Your task to perform on an android device: turn notification dots off Image 0: 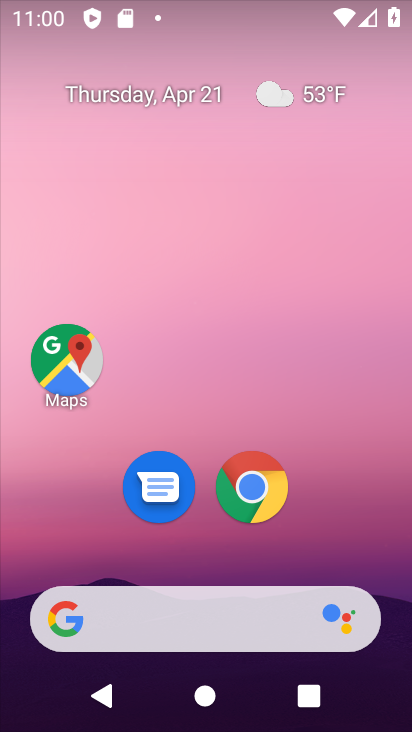
Step 0: drag from (336, 454) to (284, 107)
Your task to perform on an android device: turn notification dots off Image 1: 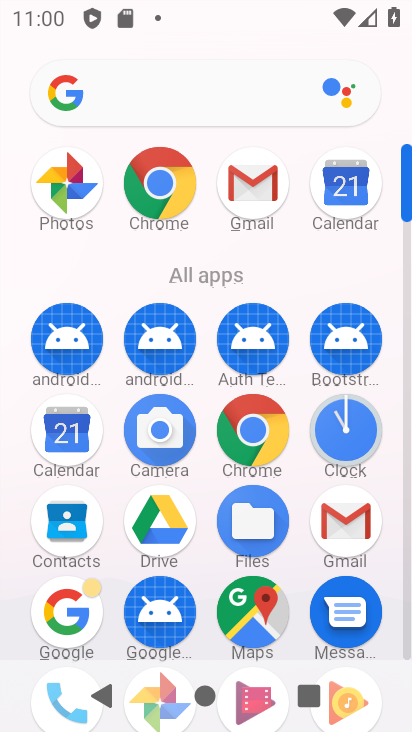
Step 1: drag from (384, 515) to (410, 225)
Your task to perform on an android device: turn notification dots off Image 2: 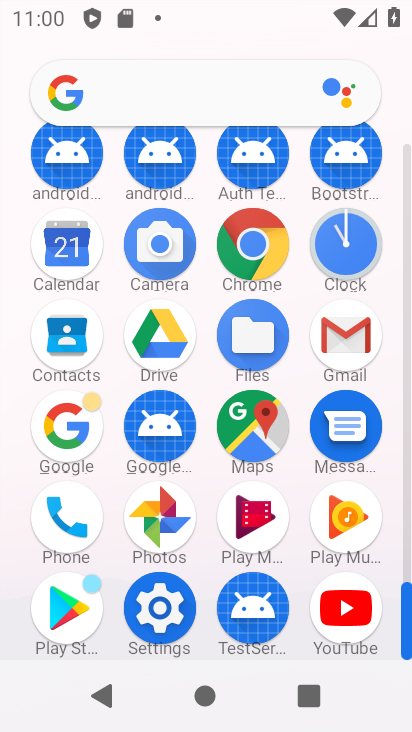
Step 2: click (150, 607)
Your task to perform on an android device: turn notification dots off Image 3: 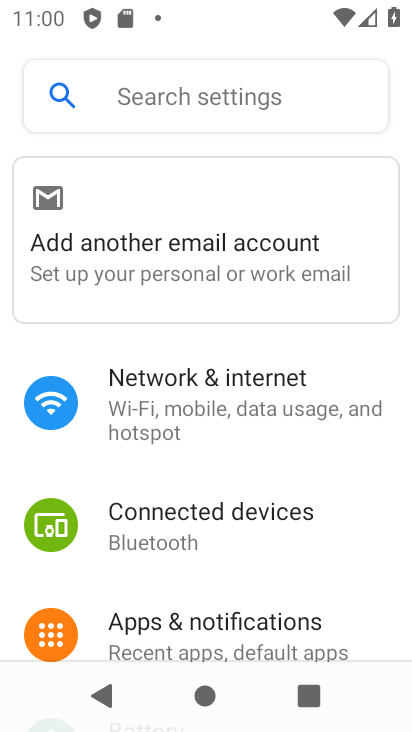
Step 3: drag from (223, 606) to (274, 225)
Your task to perform on an android device: turn notification dots off Image 4: 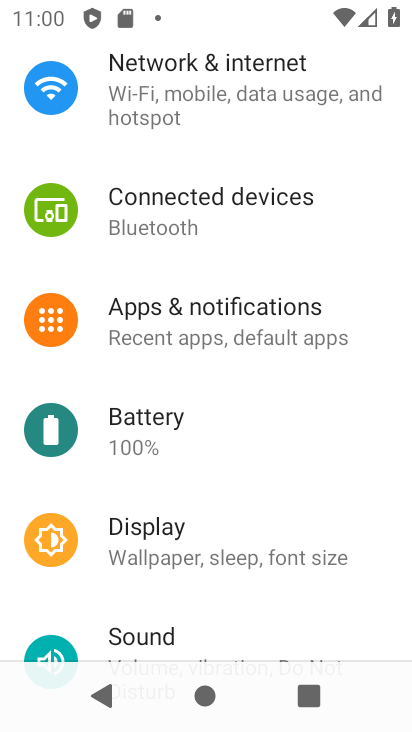
Step 4: click (288, 326)
Your task to perform on an android device: turn notification dots off Image 5: 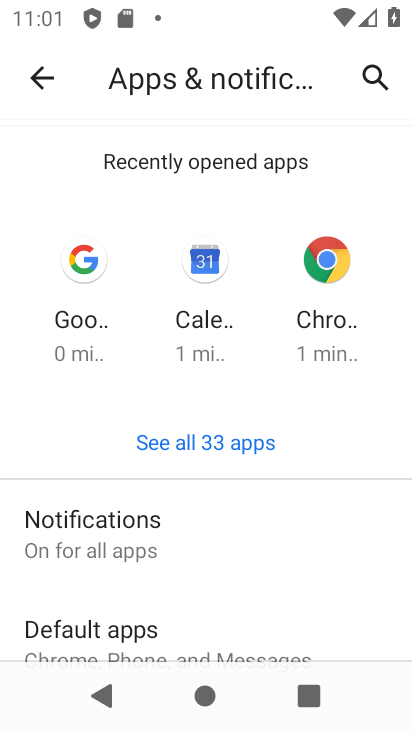
Step 5: drag from (235, 491) to (233, 214)
Your task to perform on an android device: turn notification dots off Image 6: 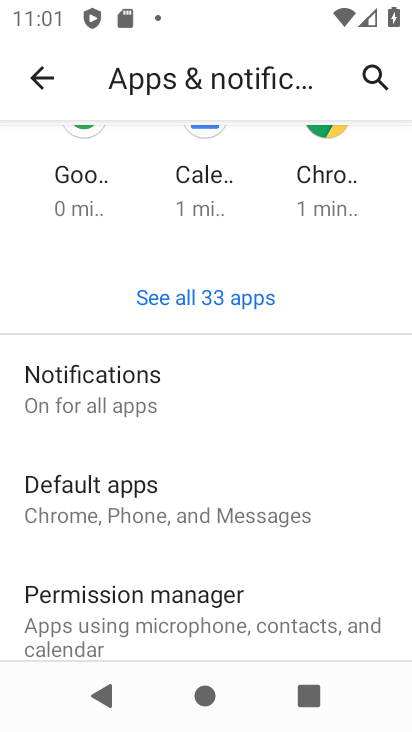
Step 6: click (96, 398)
Your task to perform on an android device: turn notification dots off Image 7: 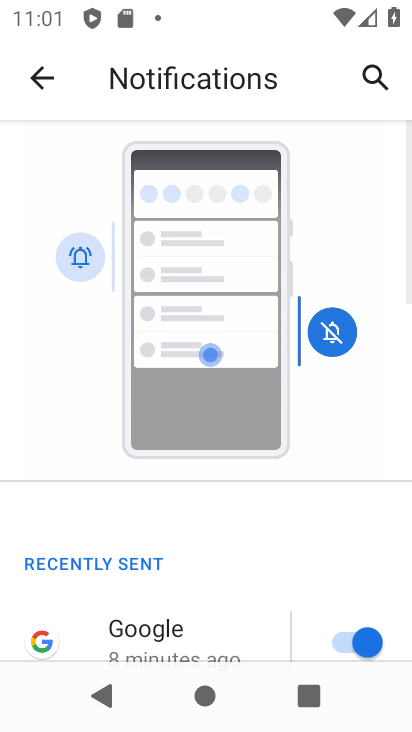
Step 7: drag from (247, 450) to (202, 137)
Your task to perform on an android device: turn notification dots off Image 8: 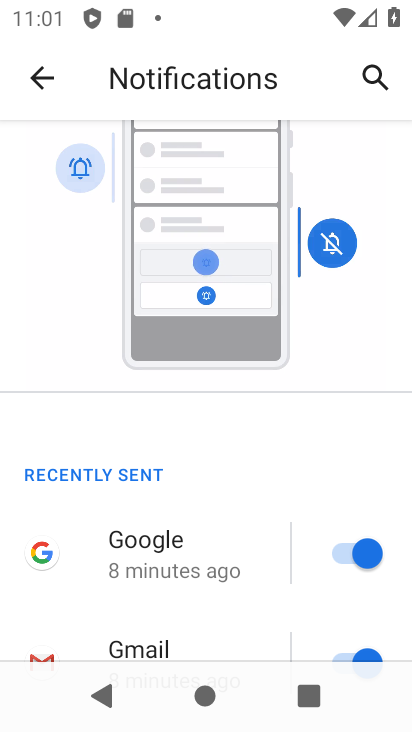
Step 8: drag from (202, 517) to (271, 110)
Your task to perform on an android device: turn notification dots off Image 9: 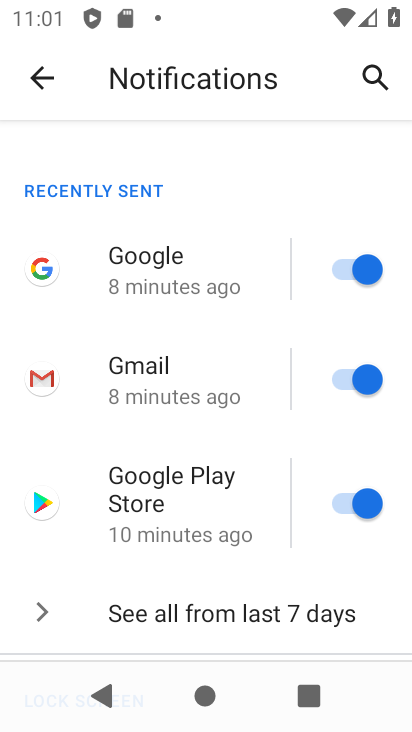
Step 9: drag from (264, 389) to (277, 86)
Your task to perform on an android device: turn notification dots off Image 10: 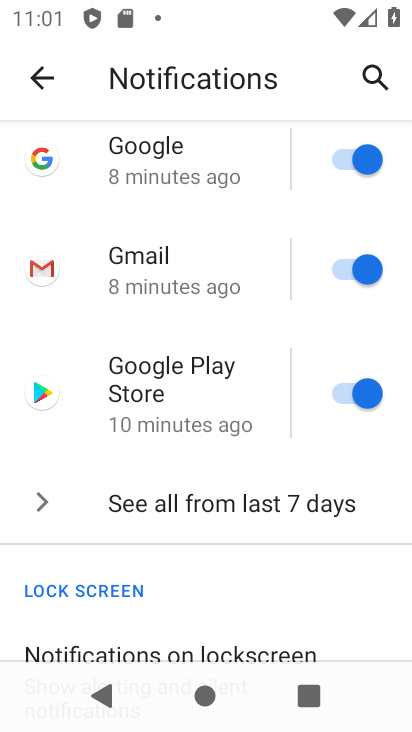
Step 10: drag from (254, 611) to (195, 246)
Your task to perform on an android device: turn notification dots off Image 11: 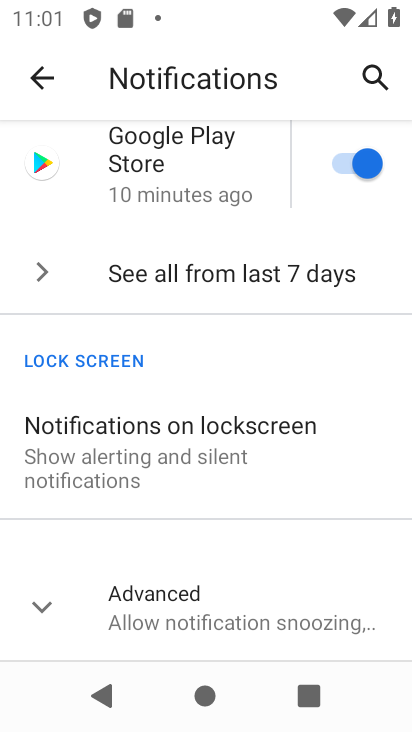
Step 11: click (195, 627)
Your task to perform on an android device: turn notification dots off Image 12: 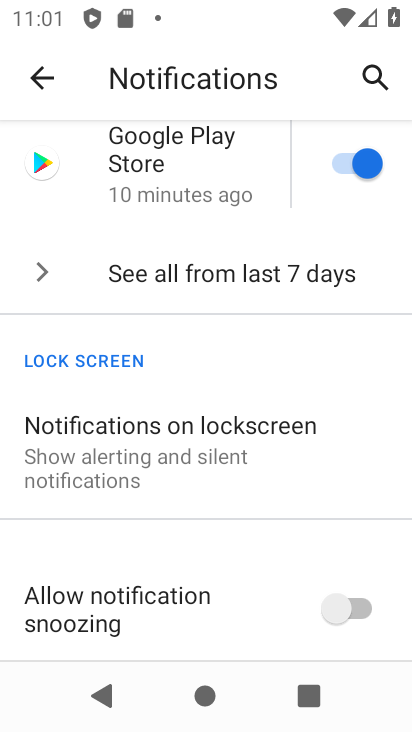
Step 12: drag from (209, 562) to (308, 286)
Your task to perform on an android device: turn notification dots off Image 13: 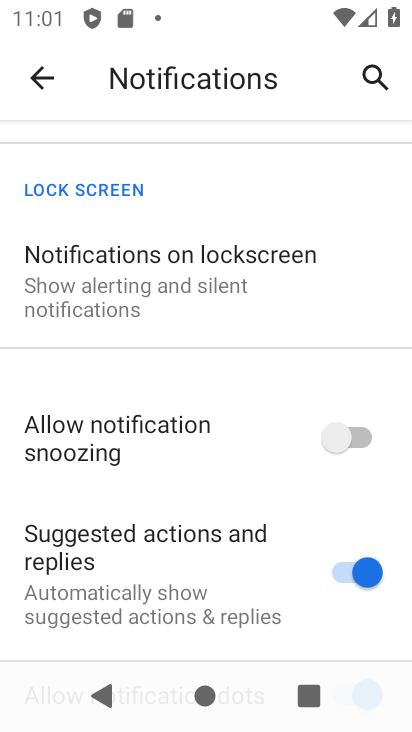
Step 13: drag from (116, 603) to (205, 282)
Your task to perform on an android device: turn notification dots off Image 14: 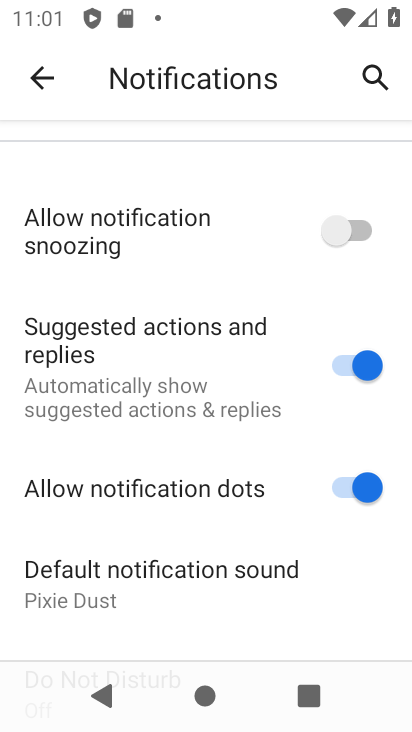
Step 14: drag from (229, 538) to (197, 362)
Your task to perform on an android device: turn notification dots off Image 15: 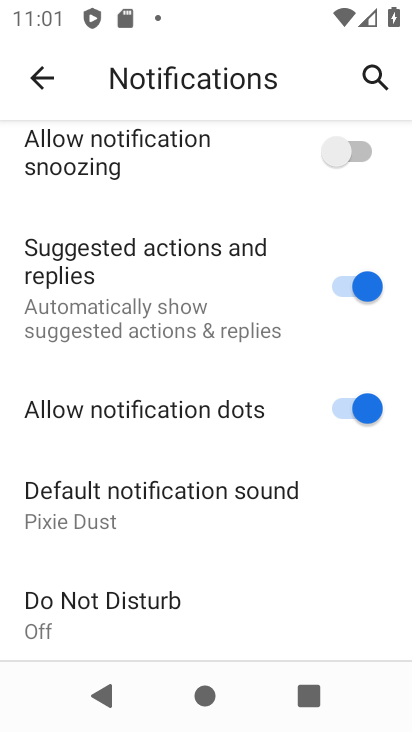
Step 15: click (338, 409)
Your task to perform on an android device: turn notification dots off Image 16: 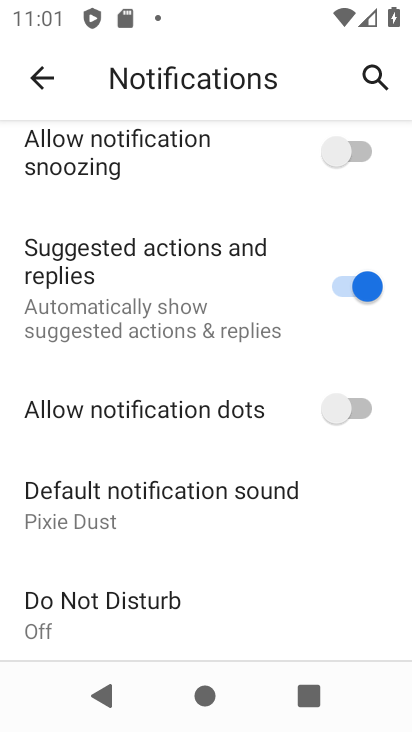
Step 16: task complete